Your task to perform on an android device: Open Chrome and go to settings Image 0: 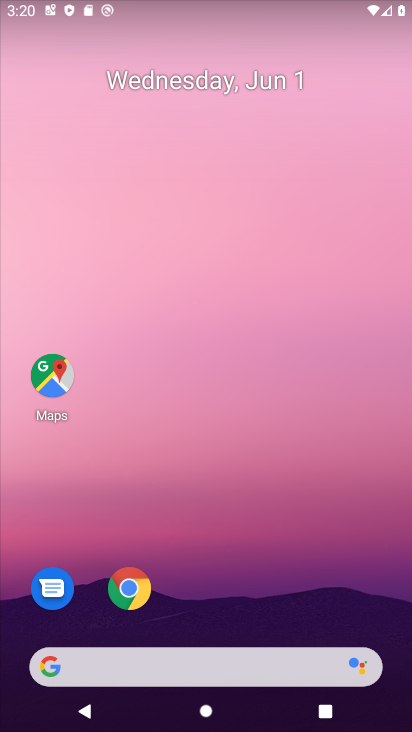
Step 0: click (136, 598)
Your task to perform on an android device: Open Chrome and go to settings Image 1: 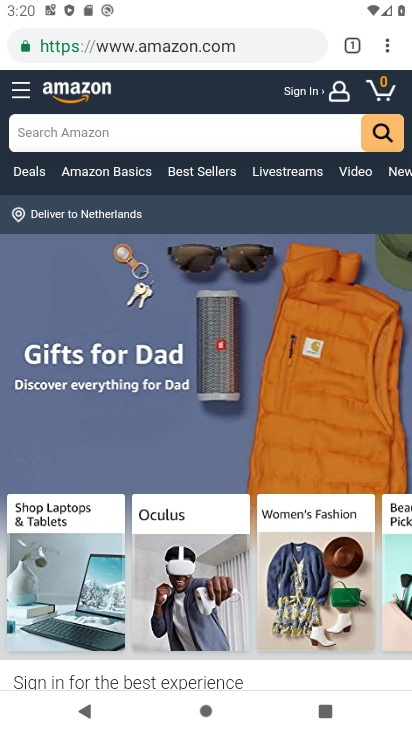
Step 1: click (395, 61)
Your task to perform on an android device: Open Chrome and go to settings Image 2: 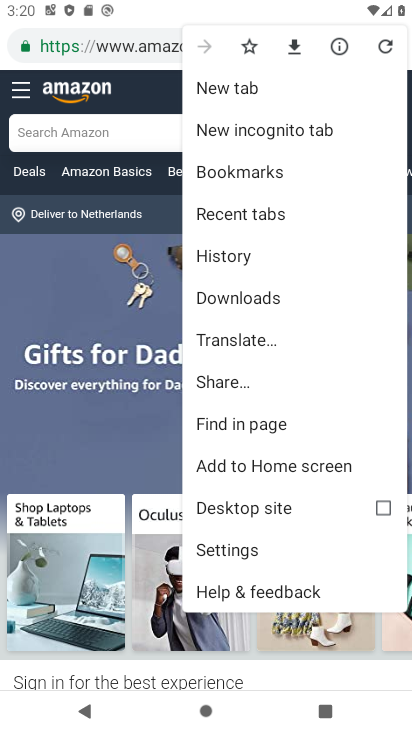
Step 2: click (260, 554)
Your task to perform on an android device: Open Chrome and go to settings Image 3: 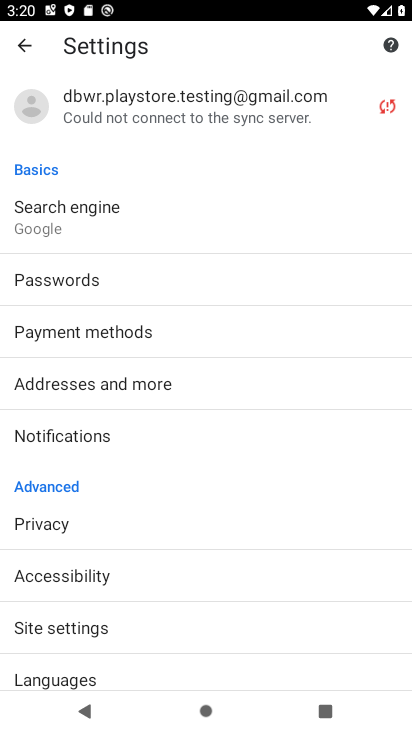
Step 3: task complete